Your task to perform on an android device: find photos in the google photos app Image 0: 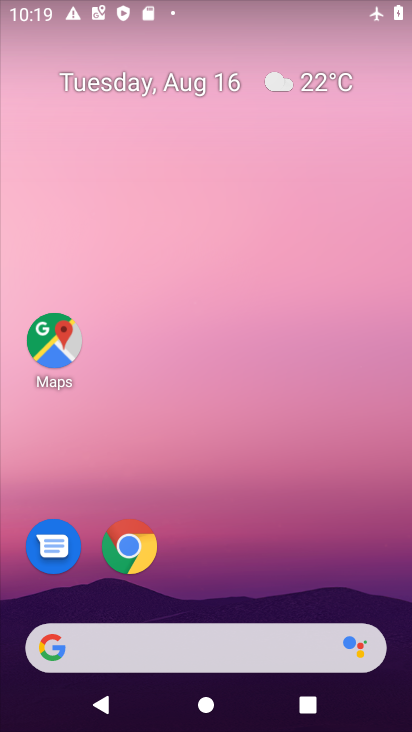
Step 0: drag from (279, 550) to (348, 13)
Your task to perform on an android device: find photos in the google photos app Image 1: 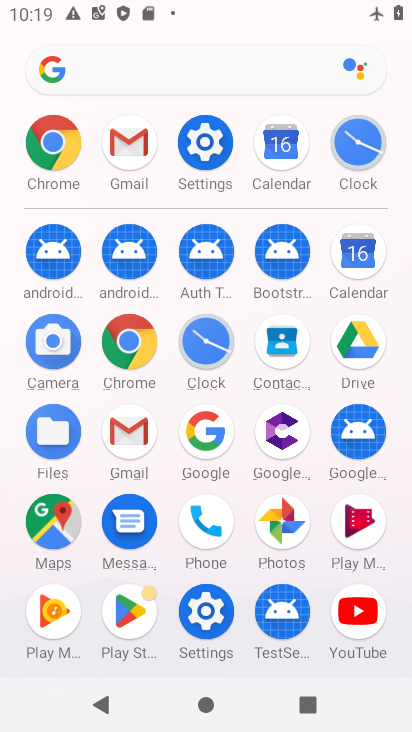
Step 1: click (285, 515)
Your task to perform on an android device: find photos in the google photos app Image 2: 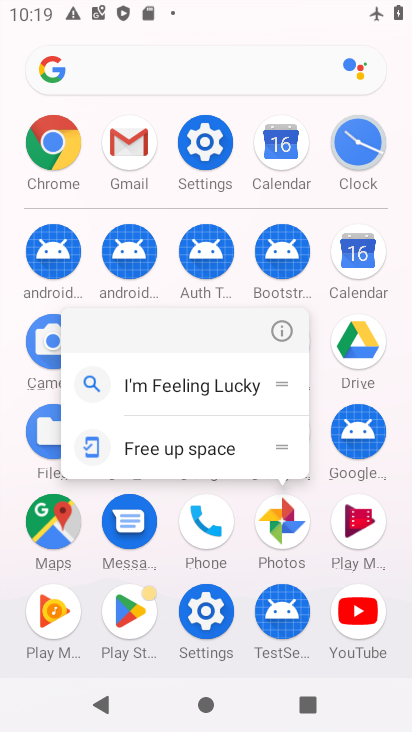
Step 2: click (287, 512)
Your task to perform on an android device: find photos in the google photos app Image 3: 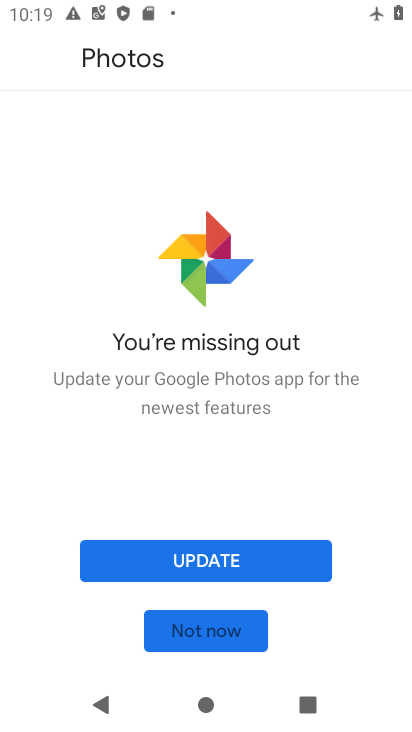
Step 3: click (231, 625)
Your task to perform on an android device: find photos in the google photos app Image 4: 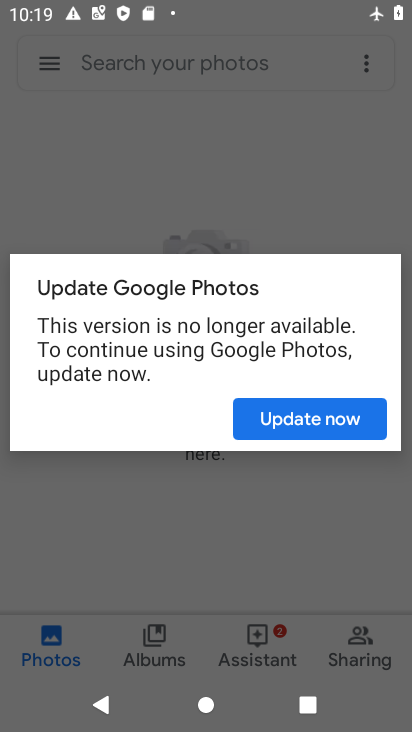
Step 4: click (339, 419)
Your task to perform on an android device: find photos in the google photos app Image 5: 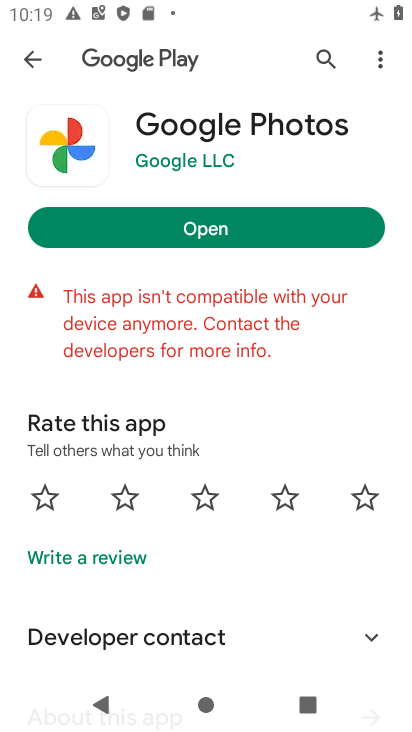
Step 5: click (302, 225)
Your task to perform on an android device: find photos in the google photos app Image 6: 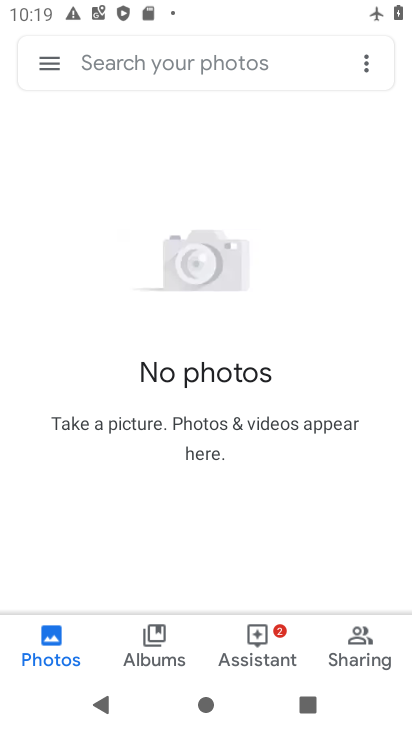
Step 6: click (55, 642)
Your task to perform on an android device: find photos in the google photos app Image 7: 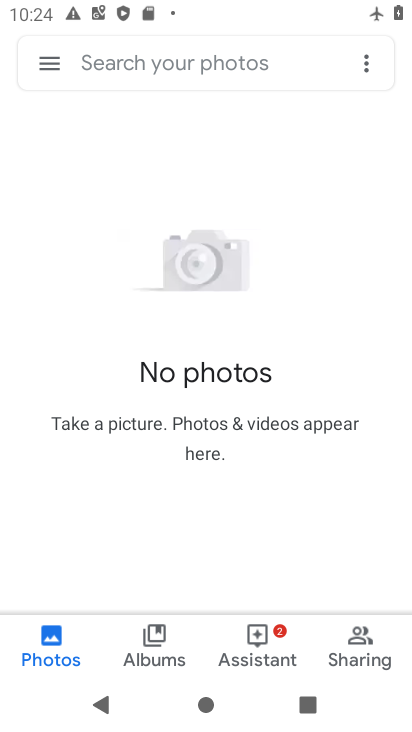
Step 7: task complete